Your task to perform on an android device: Open my contact list Image 0: 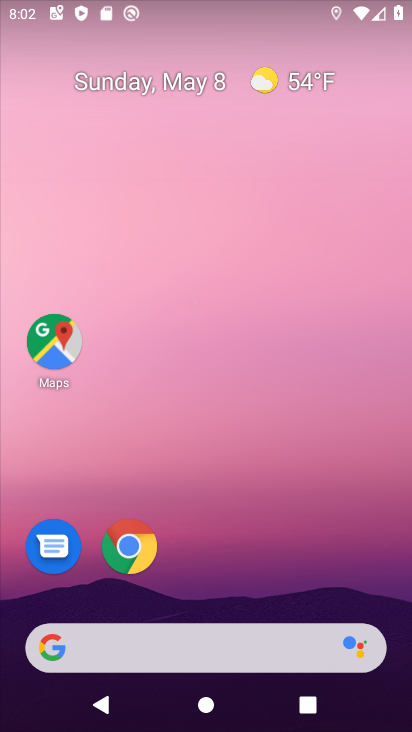
Step 0: drag from (405, 538) to (382, 131)
Your task to perform on an android device: Open my contact list Image 1: 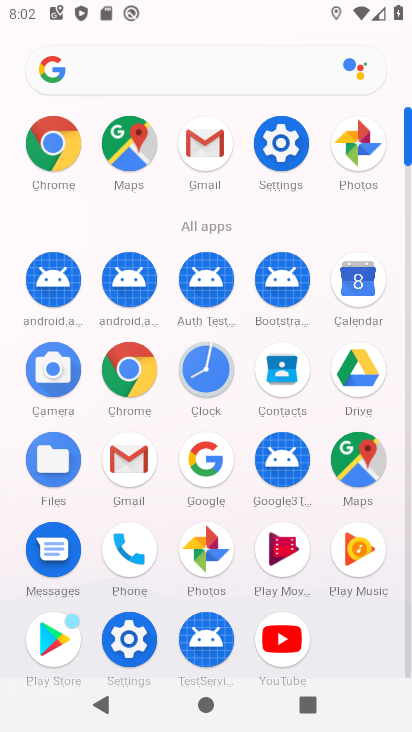
Step 1: click (284, 365)
Your task to perform on an android device: Open my contact list Image 2: 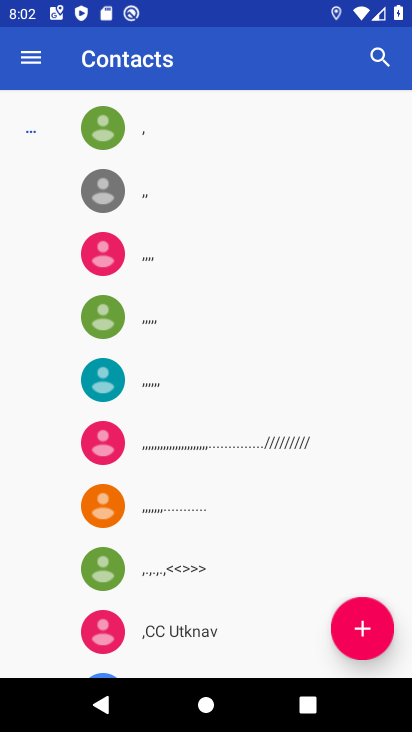
Step 2: click (361, 616)
Your task to perform on an android device: Open my contact list Image 3: 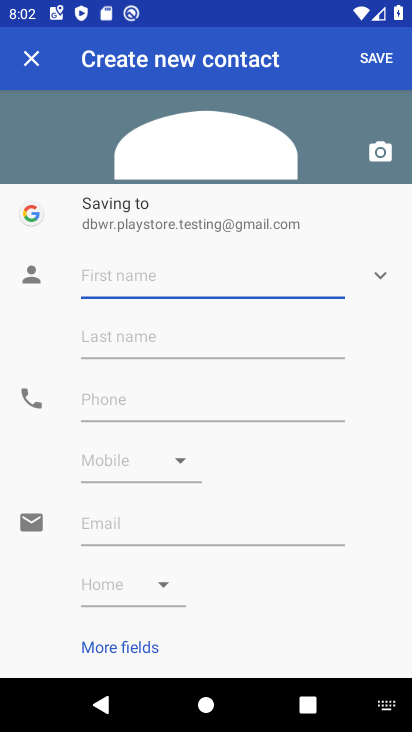
Step 3: type "hvbv mfvj"
Your task to perform on an android device: Open my contact list Image 4: 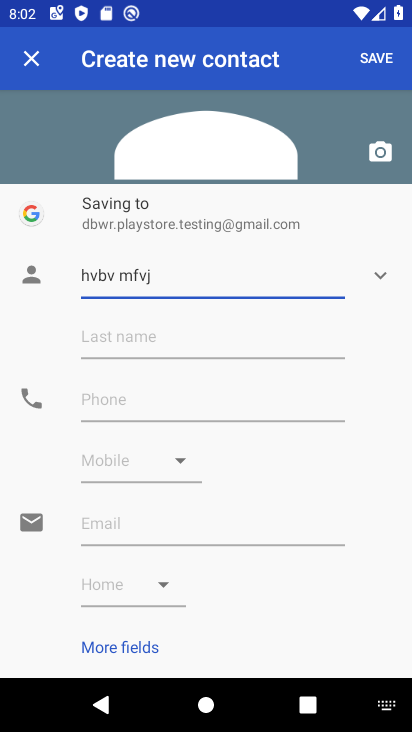
Step 4: click (123, 343)
Your task to perform on an android device: Open my contact list Image 5: 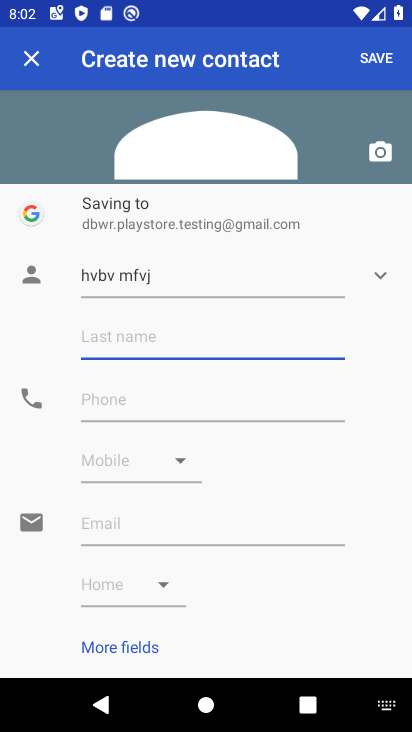
Step 5: type "hyrfkbkvbh"
Your task to perform on an android device: Open my contact list Image 6: 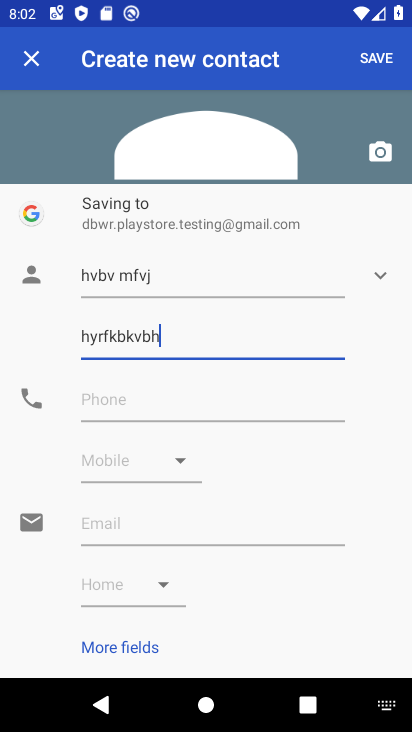
Step 6: click (184, 397)
Your task to perform on an android device: Open my contact list Image 7: 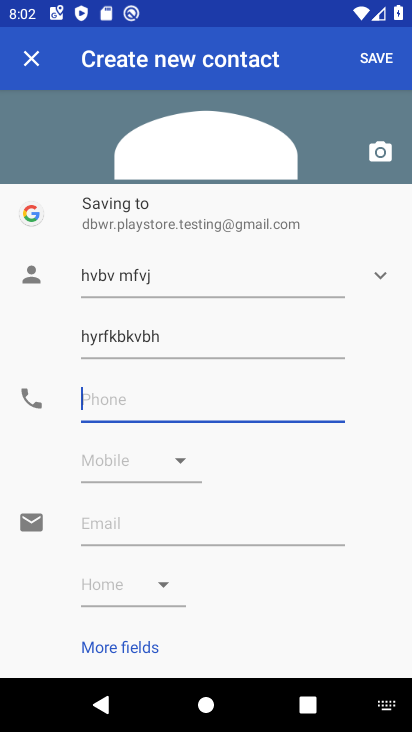
Step 7: type "8t99867693488954"
Your task to perform on an android device: Open my contact list Image 8: 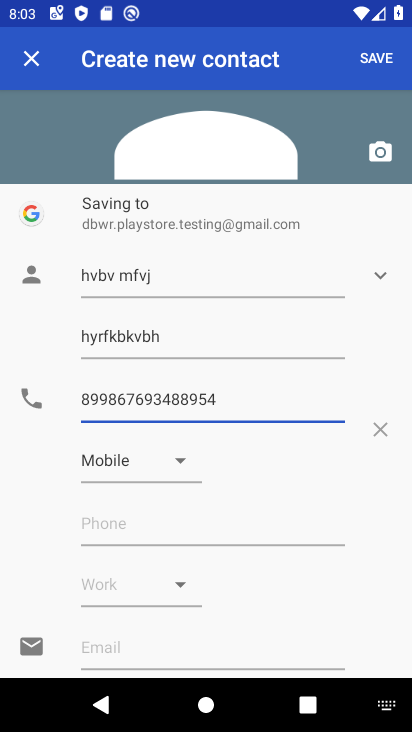
Step 8: click (372, 62)
Your task to perform on an android device: Open my contact list Image 9: 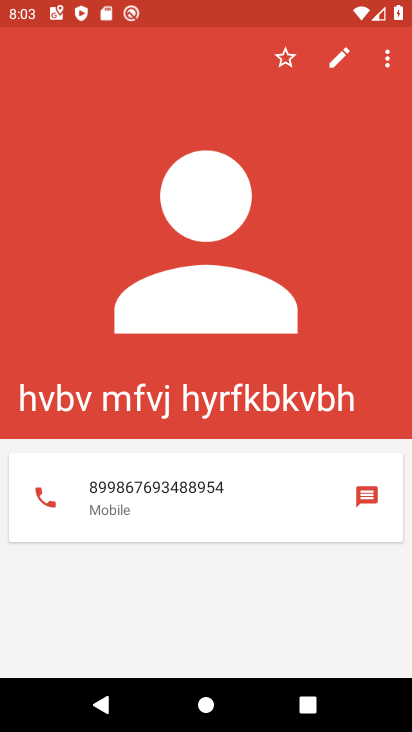
Step 9: task complete